Your task to perform on an android device: Show the shopping cart on ebay.com. Image 0: 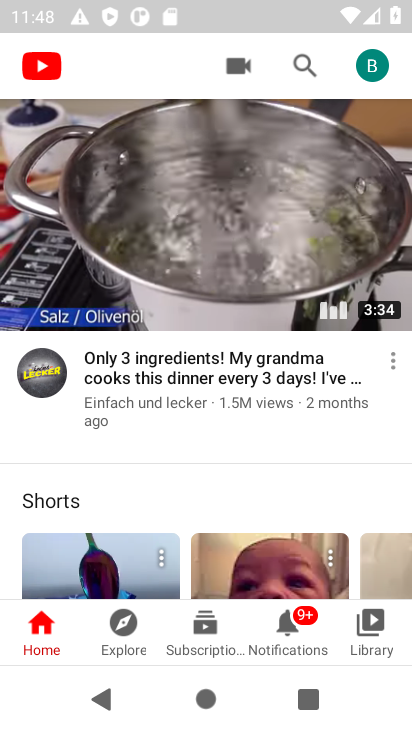
Step 0: press home button
Your task to perform on an android device: Show the shopping cart on ebay.com. Image 1: 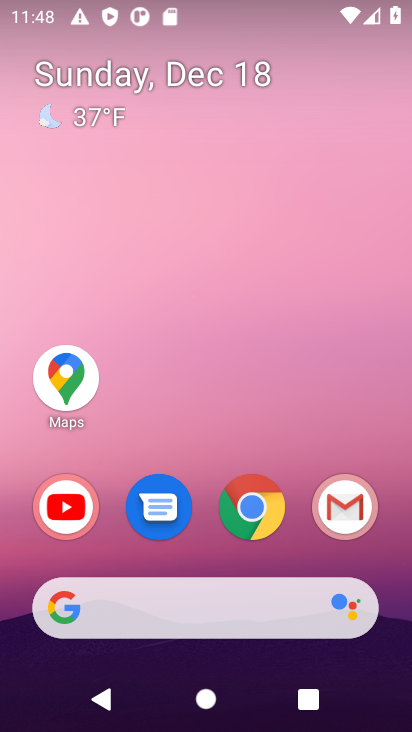
Step 1: click (256, 514)
Your task to perform on an android device: Show the shopping cart on ebay.com. Image 2: 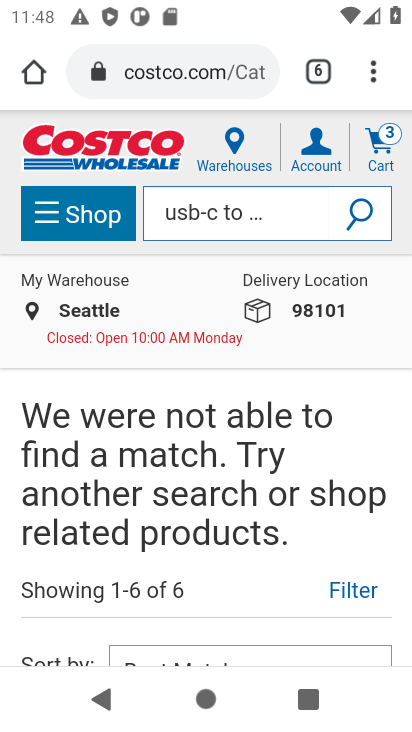
Step 2: click (150, 79)
Your task to perform on an android device: Show the shopping cart on ebay.com. Image 3: 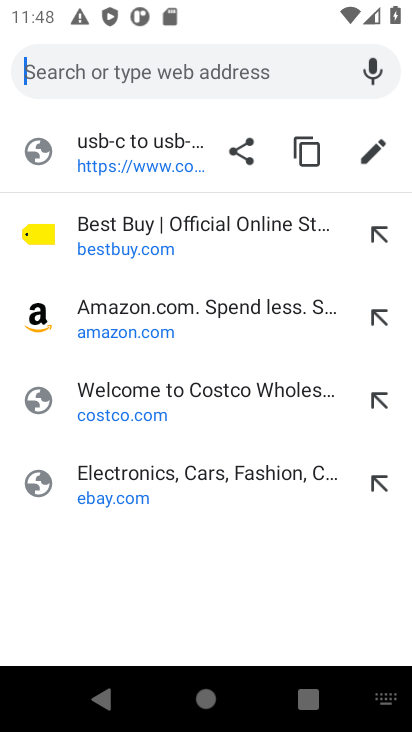
Step 3: click (109, 488)
Your task to perform on an android device: Show the shopping cart on ebay.com. Image 4: 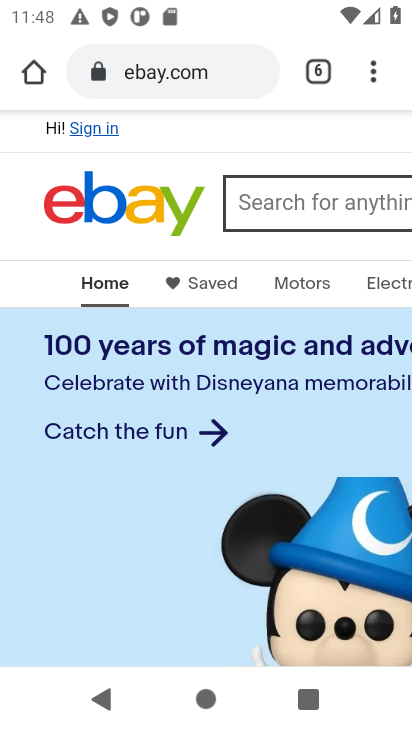
Step 4: drag from (264, 156) to (2, 218)
Your task to perform on an android device: Show the shopping cart on ebay.com. Image 5: 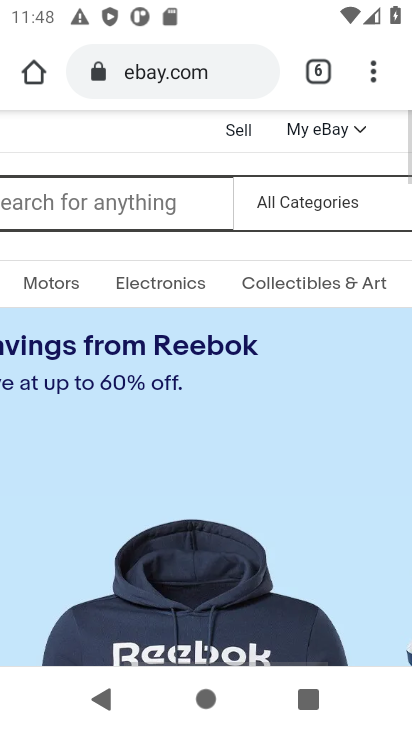
Step 5: drag from (316, 158) to (12, 217)
Your task to perform on an android device: Show the shopping cart on ebay.com. Image 6: 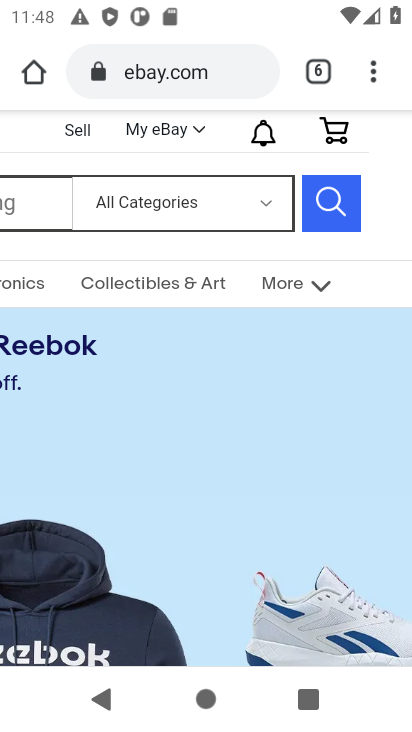
Step 6: click (331, 140)
Your task to perform on an android device: Show the shopping cart on ebay.com. Image 7: 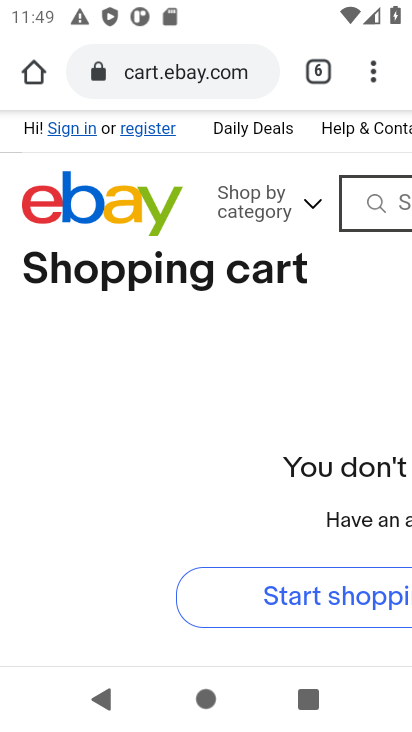
Step 7: task complete